Your task to perform on an android device: Go to Android settings Image 0: 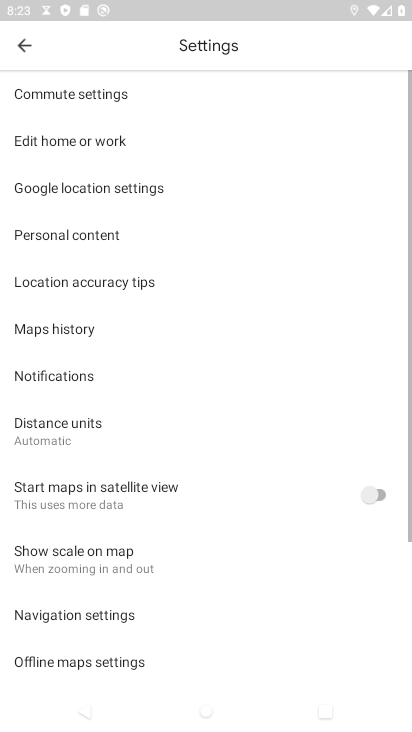
Step 0: press home button
Your task to perform on an android device: Go to Android settings Image 1: 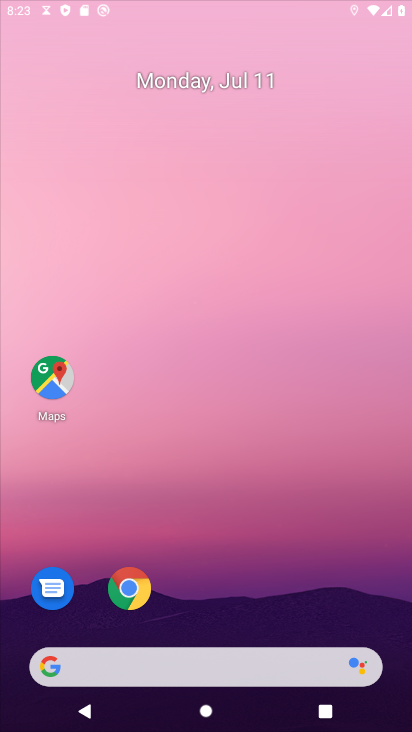
Step 1: press home button
Your task to perform on an android device: Go to Android settings Image 2: 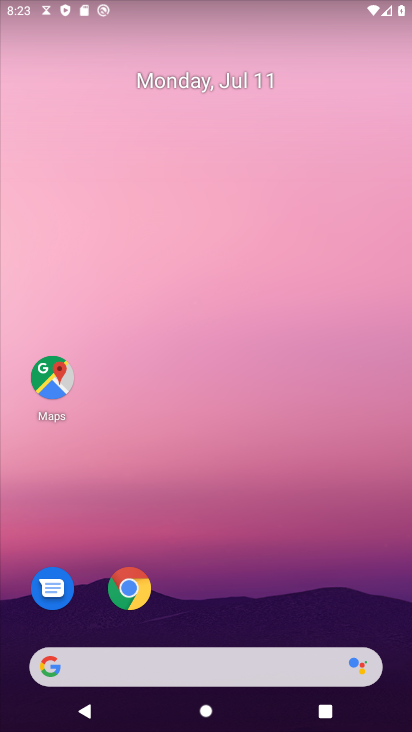
Step 2: drag from (309, 465) to (261, 10)
Your task to perform on an android device: Go to Android settings Image 3: 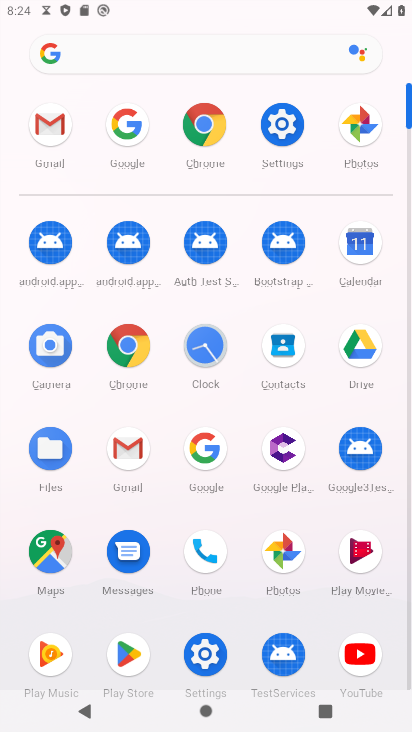
Step 3: click (283, 131)
Your task to perform on an android device: Go to Android settings Image 4: 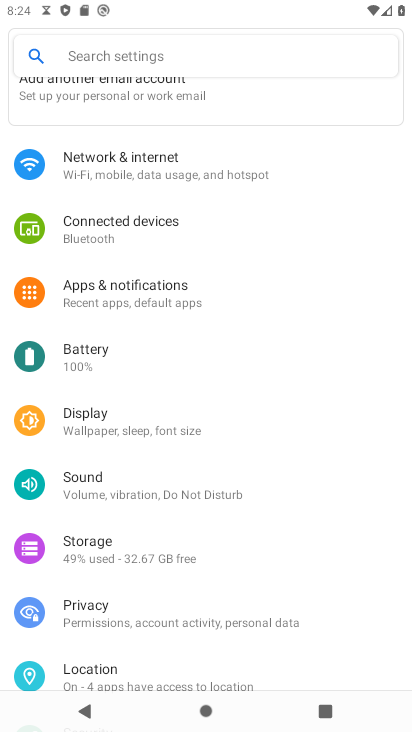
Step 4: task complete